Your task to perform on an android device: Check the news Image 0: 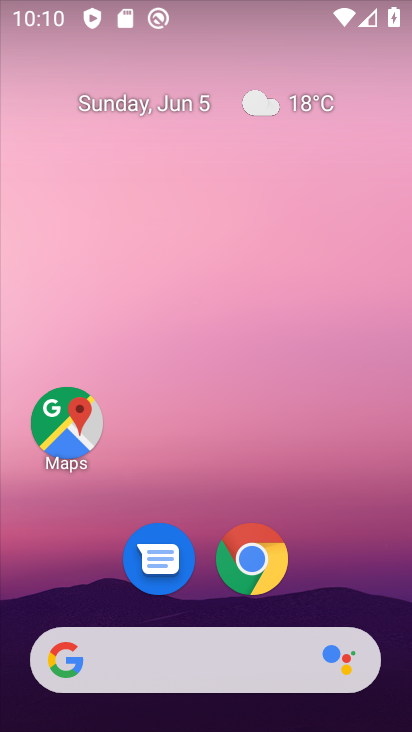
Step 0: drag from (305, 580) to (293, 21)
Your task to perform on an android device: Check the news Image 1: 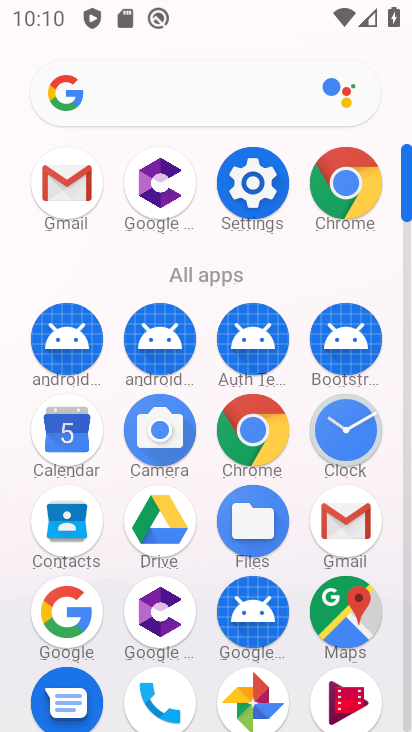
Step 1: click (266, 432)
Your task to perform on an android device: Check the news Image 2: 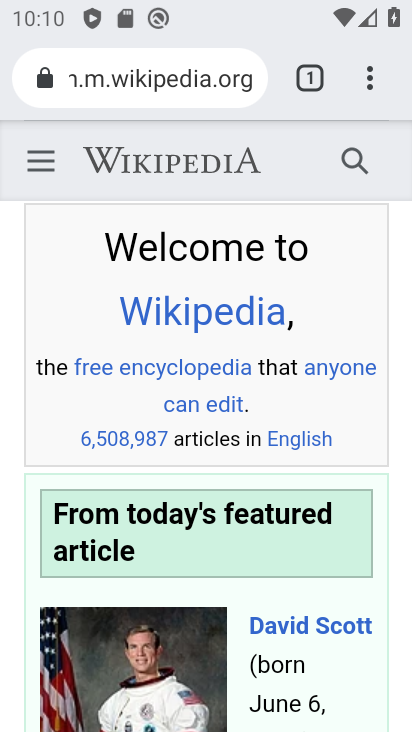
Step 2: click (143, 70)
Your task to perform on an android device: Check the news Image 3: 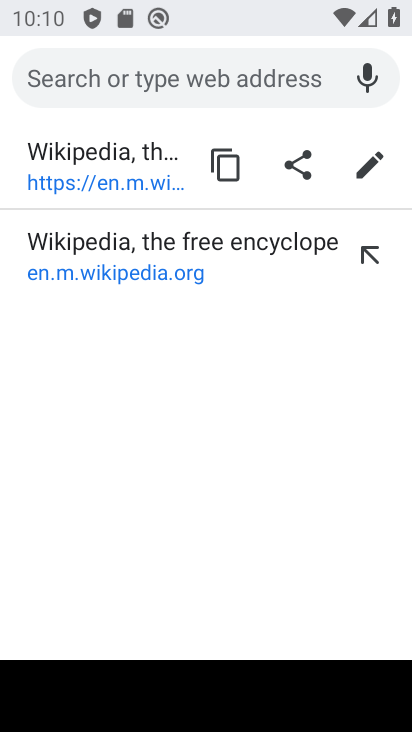
Step 3: type "Check the news"
Your task to perform on an android device: Check the news Image 4: 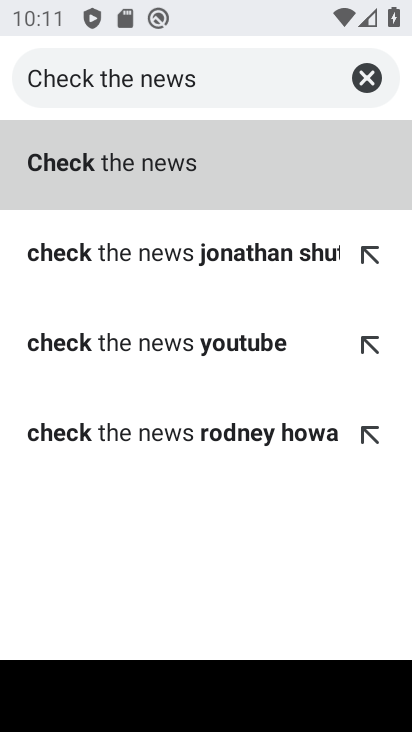
Step 4: click (141, 151)
Your task to perform on an android device: Check the news Image 5: 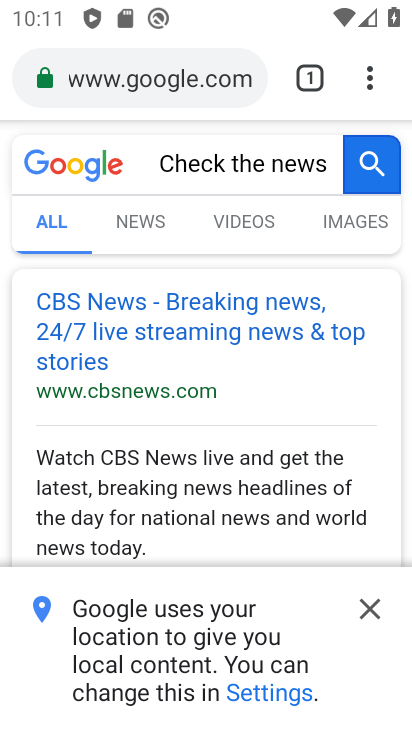
Step 5: click (130, 219)
Your task to perform on an android device: Check the news Image 6: 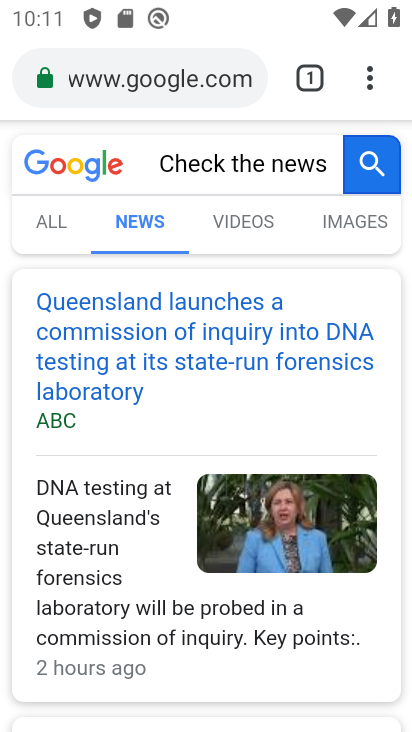
Step 6: task complete